Your task to perform on an android device: toggle location history Image 0: 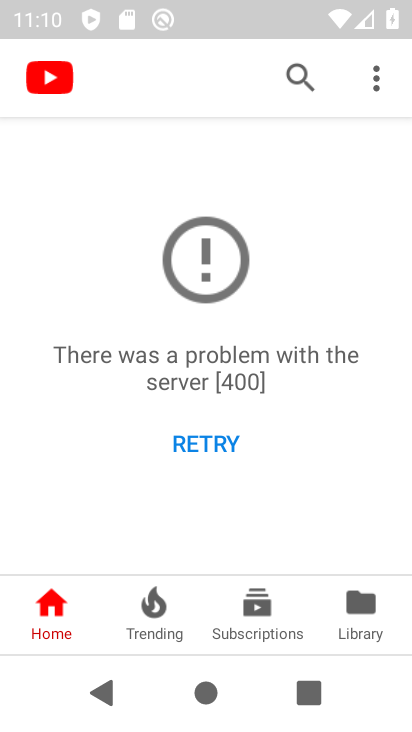
Step 0: press home button
Your task to perform on an android device: toggle location history Image 1: 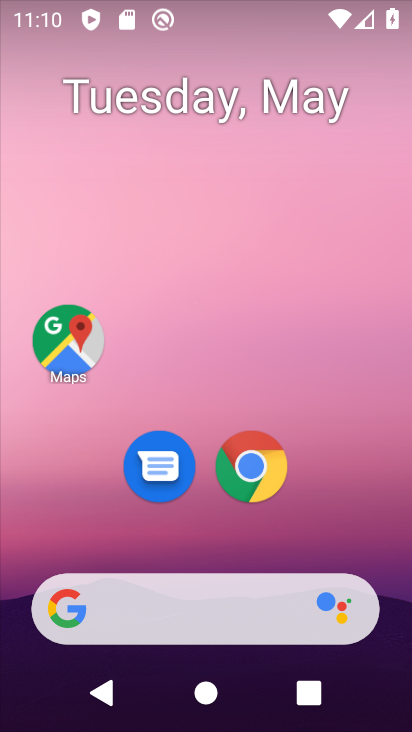
Step 1: drag from (197, 574) to (308, 150)
Your task to perform on an android device: toggle location history Image 2: 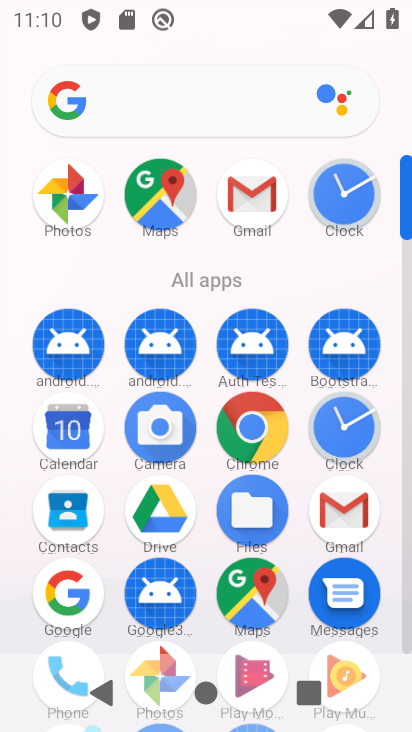
Step 2: drag from (190, 579) to (338, 76)
Your task to perform on an android device: toggle location history Image 3: 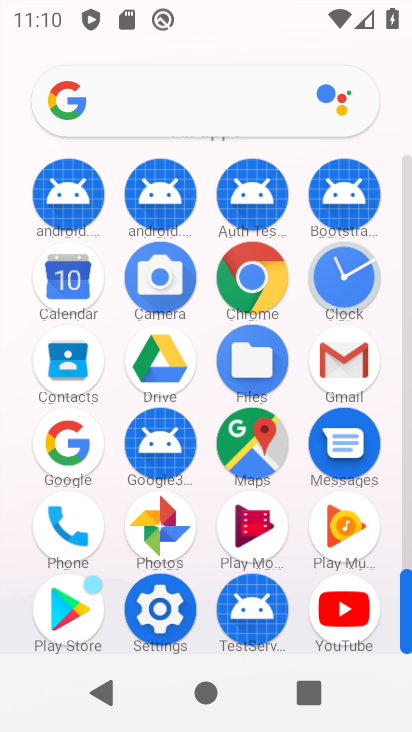
Step 3: click (164, 613)
Your task to perform on an android device: toggle location history Image 4: 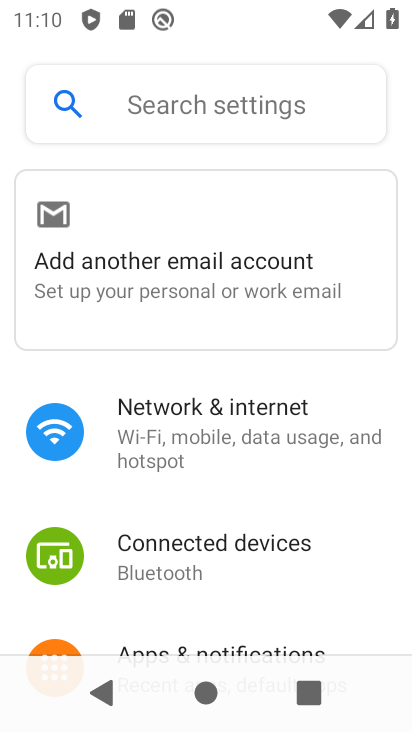
Step 4: drag from (159, 592) to (273, 147)
Your task to perform on an android device: toggle location history Image 5: 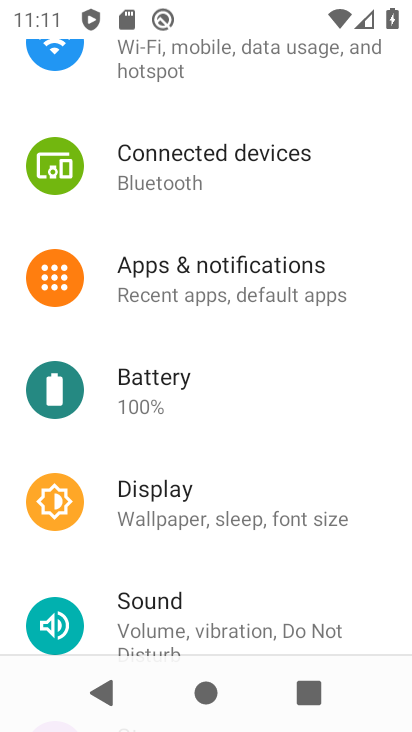
Step 5: drag from (212, 533) to (298, 42)
Your task to perform on an android device: toggle location history Image 6: 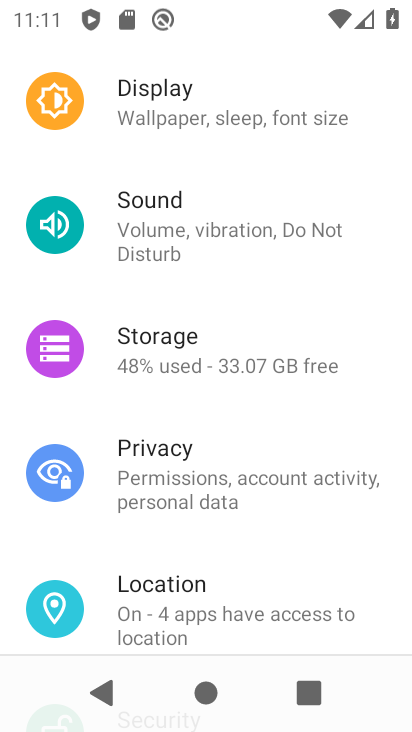
Step 6: click (188, 606)
Your task to perform on an android device: toggle location history Image 7: 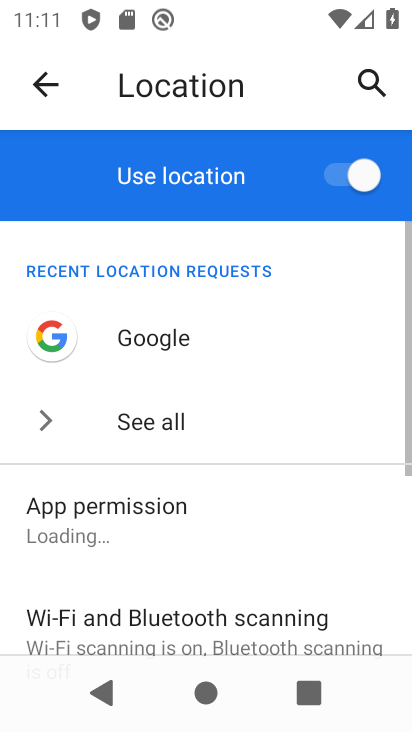
Step 7: drag from (189, 599) to (289, 111)
Your task to perform on an android device: toggle location history Image 8: 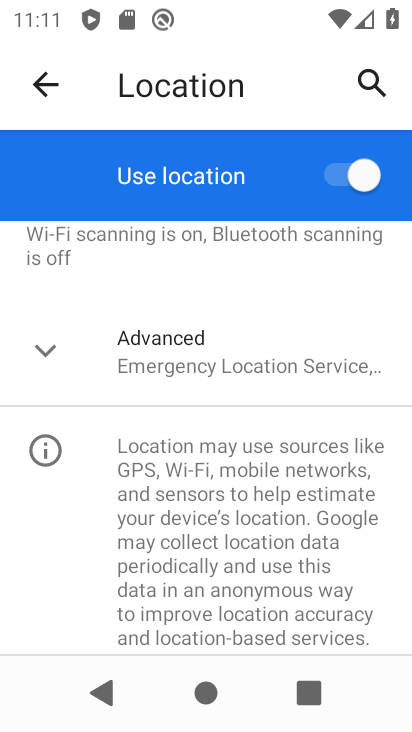
Step 8: click (239, 366)
Your task to perform on an android device: toggle location history Image 9: 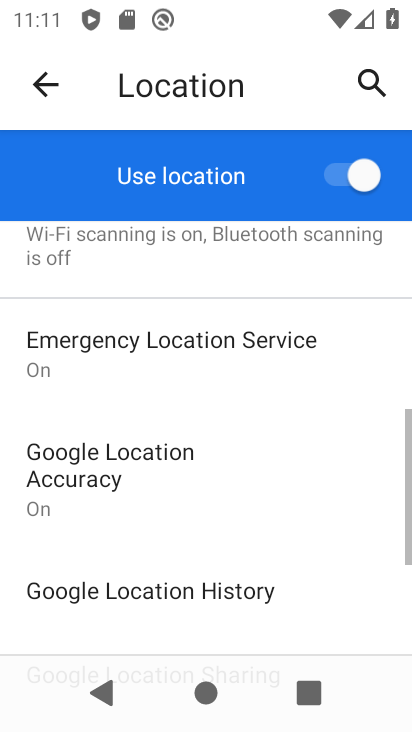
Step 9: click (193, 596)
Your task to perform on an android device: toggle location history Image 10: 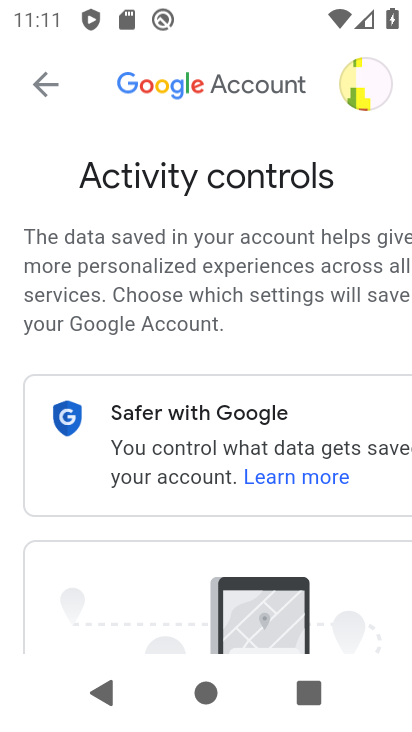
Step 10: drag from (329, 503) to (318, 133)
Your task to perform on an android device: toggle location history Image 11: 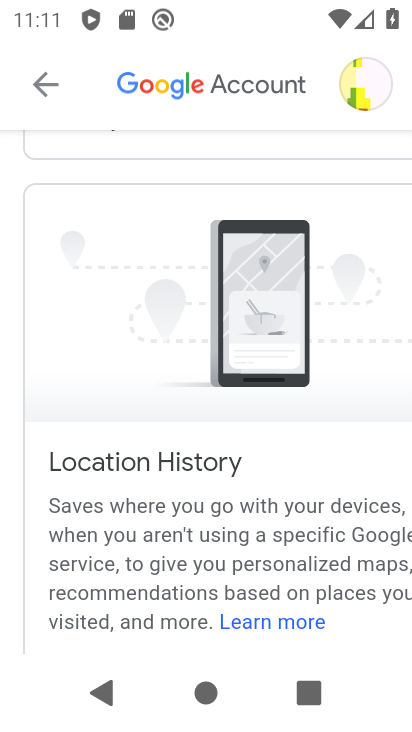
Step 11: drag from (204, 599) to (240, 135)
Your task to perform on an android device: toggle location history Image 12: 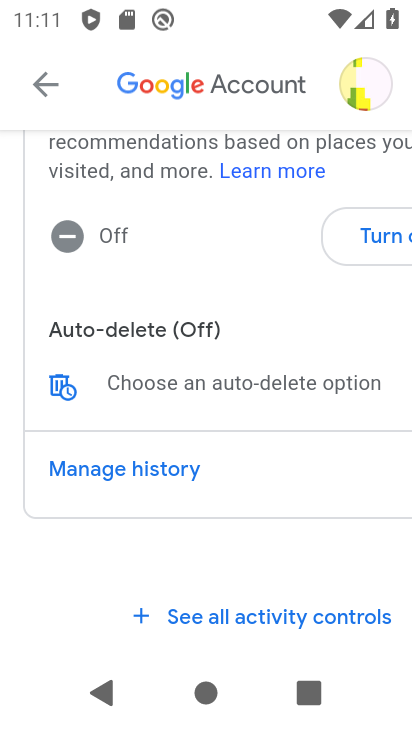
Step 12: click (372, 232)
Your task to perform on an android device: toggle location history Image 13: 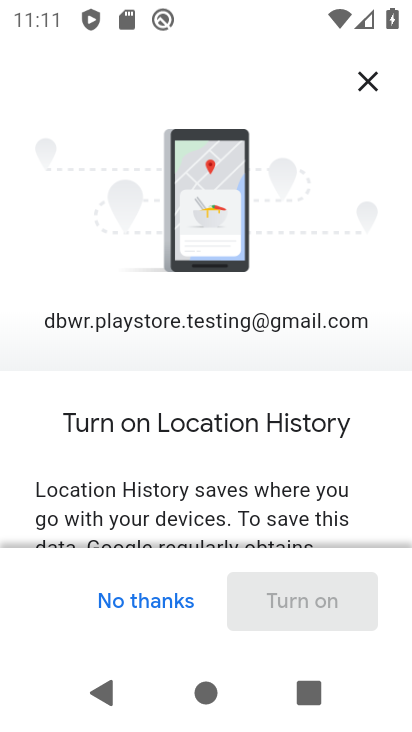
Step 13: drag from (264, 494) to (366, 16)
Your task to perform on an android device: toggle location history Image 14: 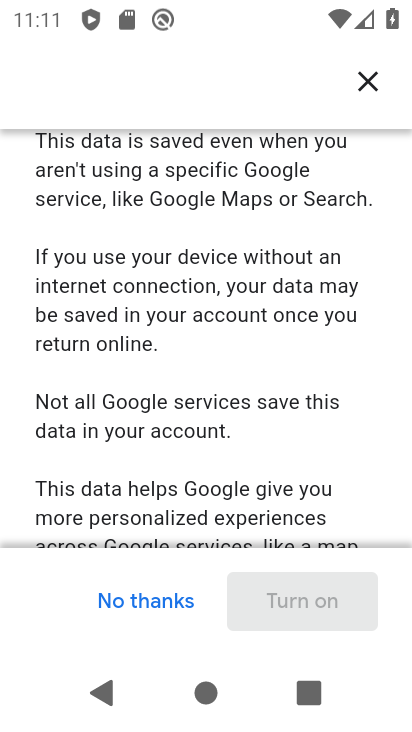
Step 14: drag from (209, 505) to (284, 10)
Your task to perform on an android device: toggle location history Image 15: 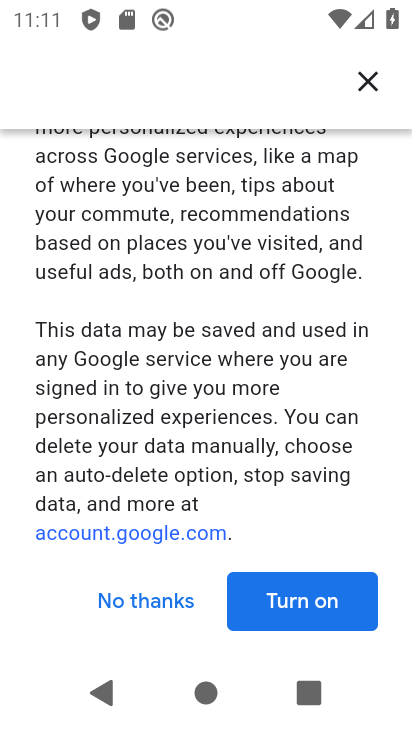
Step 15: drag from (199, 462) to (262, 122)
Your task to perform on an android device: toggle location history Image 16: 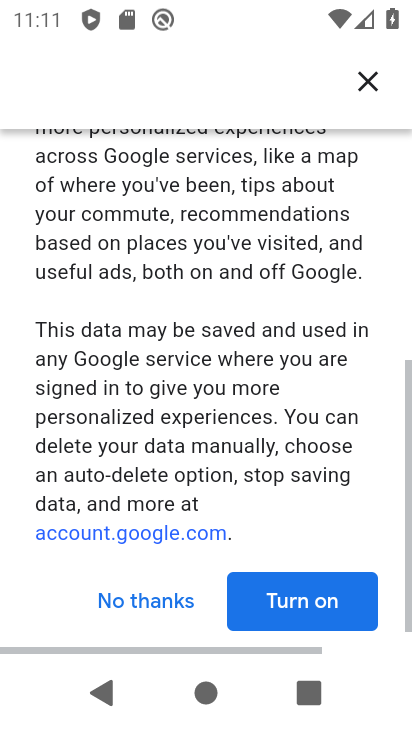
Step 16: click (289, 597)
Your task to perform on an android device: toggle location history Image 17: 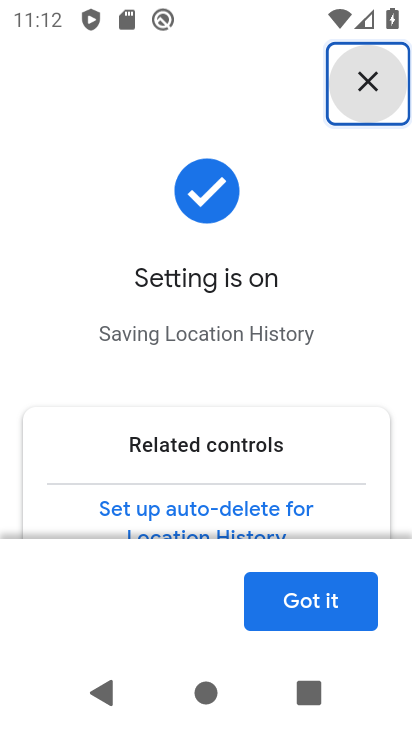
Step 17: click (285, 609)
Your task to perform on an android device: toggle location history Image 18: 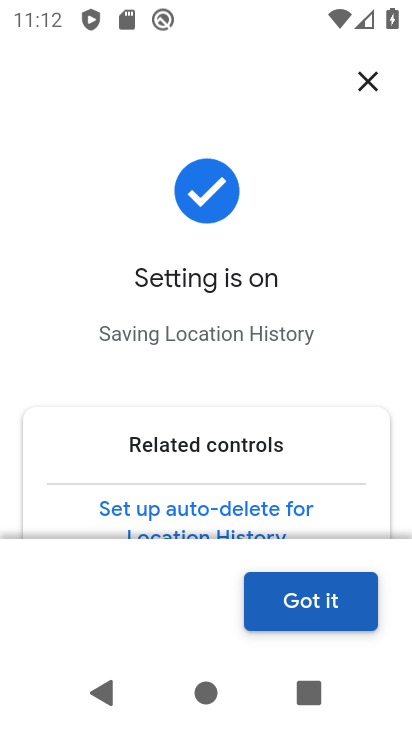
Step 18: task complete